Your task to perform on an android device: Go to eBay Image 0: 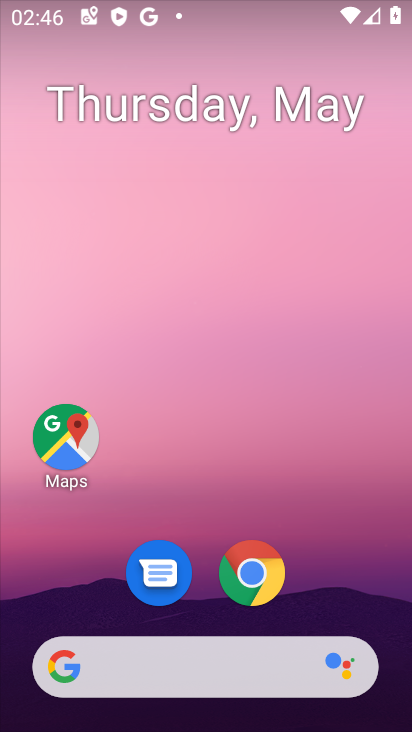
Step 0: click (241, 562)
Your task to perform on an android device: Go to eBay Image 1: 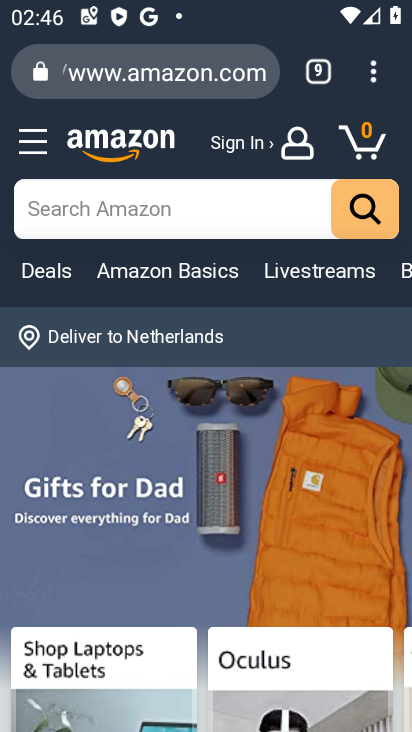
Step 1: click (322, 64)
Your task to perform on an android device: Go to eBay Image 2: 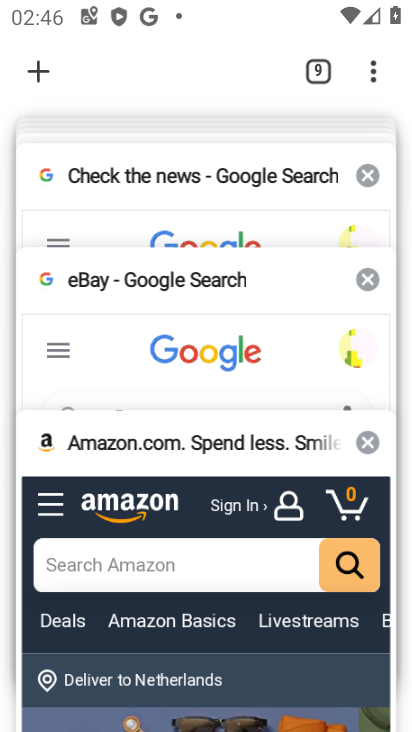
Step 2: click (129, 339)
Your task to perform on an android device: Go to eBay Image 3: 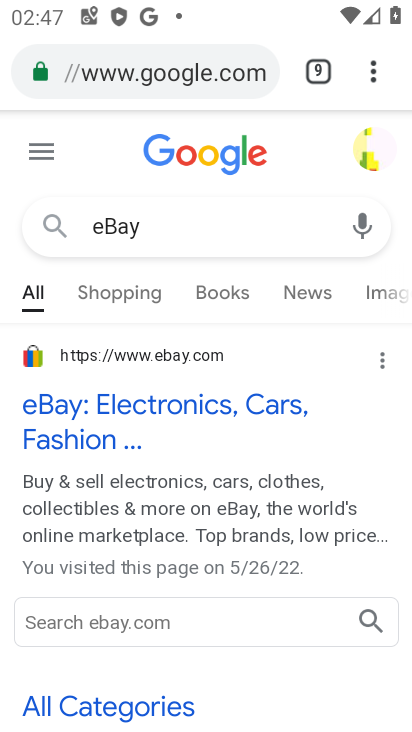
Step 3: task complete